Your task to perform on an android device: Go to CNN.com Image 0: 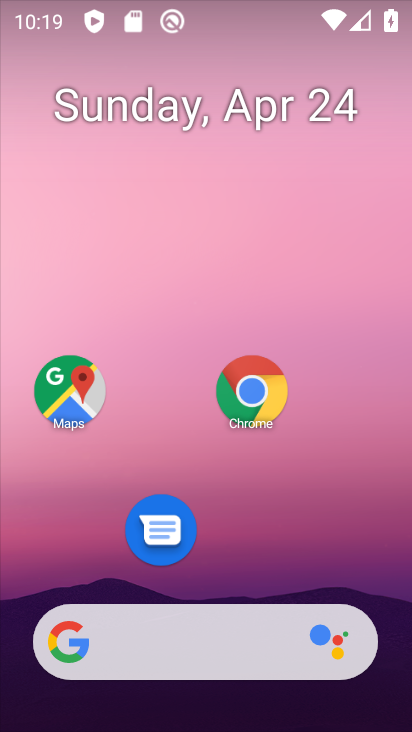
Step 0: click (254, 395)
Your task to perform on an android device: Go to CNN.com Image 1: 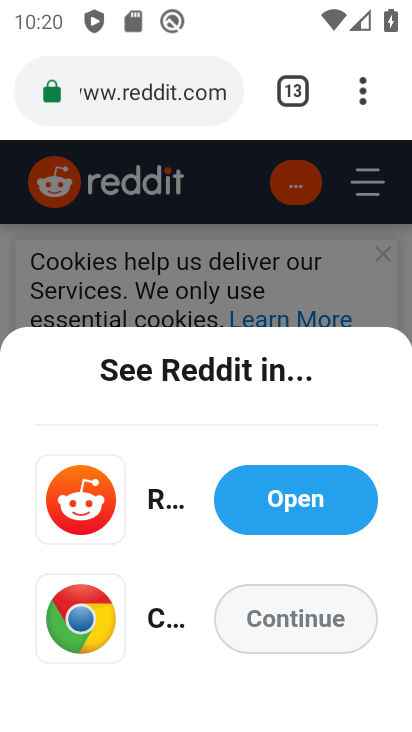
Step 1: click (365, 94)
Your task to perform on an android device: Go to CNN.com Image 2: 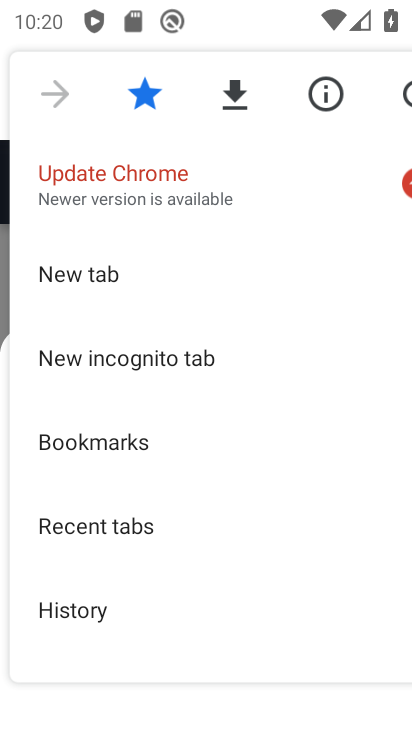
Step 2: click (47, 96)
Your task to perform on an android device: Go to CNN.com Image 3: 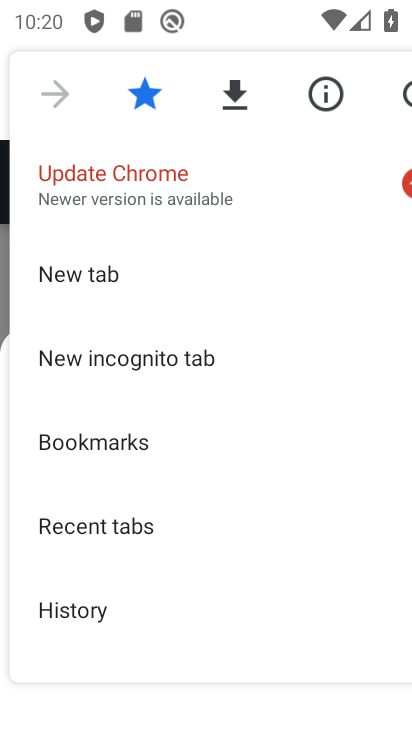
Step 3: click (116, 255)
Your task to perform on an android device: Go to CNN.com Image 4: 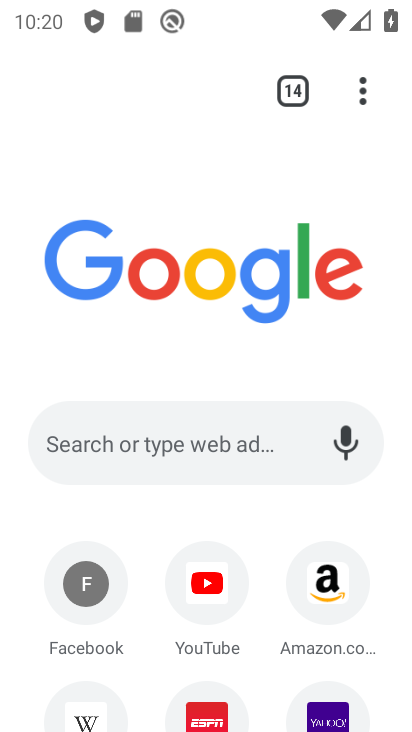
Step 4: click (237, 446)
Your task to perform on an android device: Go to CNN.com Image 5: 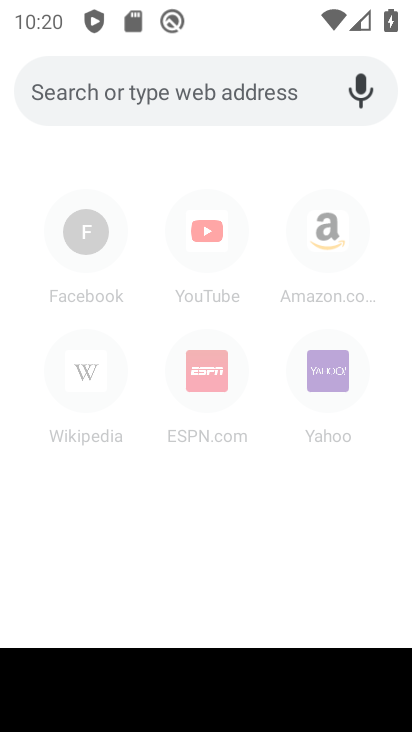
Step 5: type "cnn.com"
Your task to perform on an android device: Go to CNN.com Image 6: 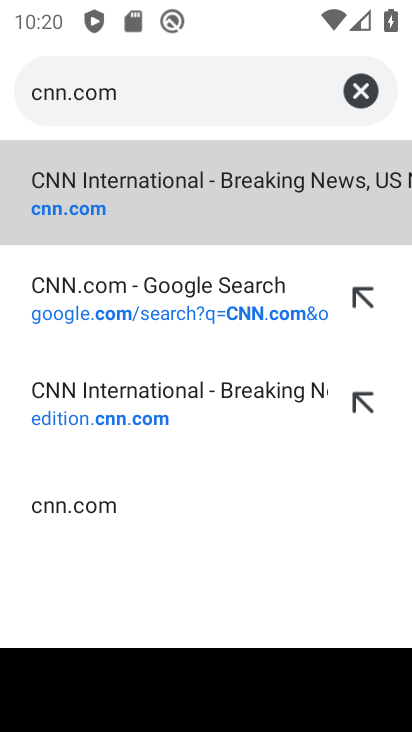
Step 6: click (149, 171)
Your task to perform on an android device: Go to CNN.com Image 7: 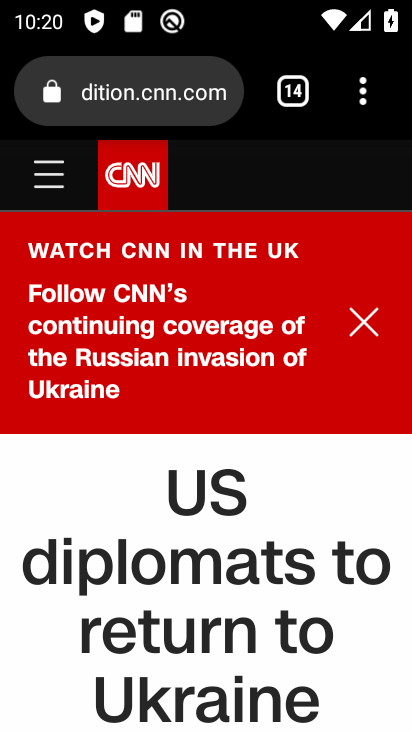
Step 7: task complete